Your task to perform on an android device: Open sound settings Image 0: 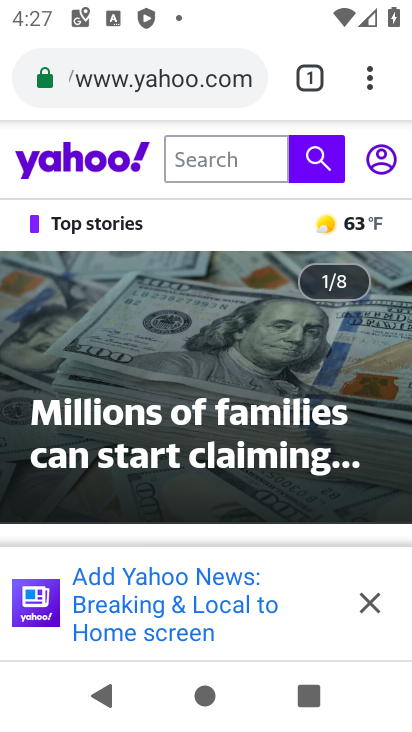
Step 0: press home button
Your task to perform on an android device: Open sound settings Image 1: 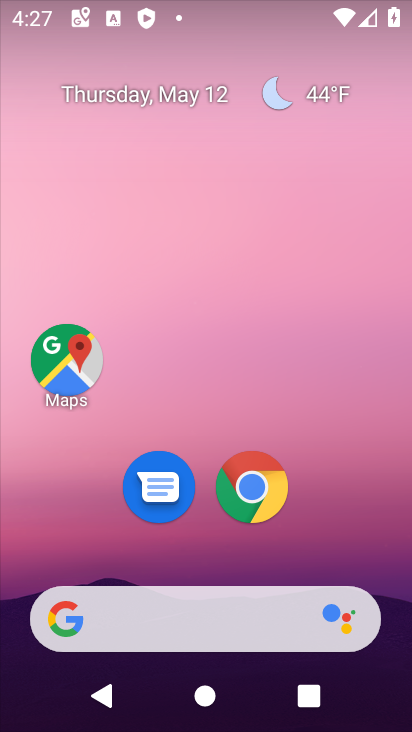
Step 1: drag from (184, 547) to (208, 101)
Your task to perform on an android device: Open sound settings Image 2: 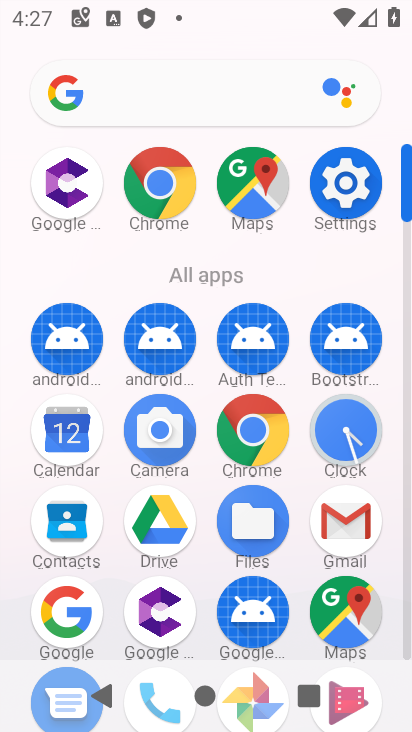
Step 2: click (342, 183)
Your task to perform on an android device: Open sound settings Image 3: 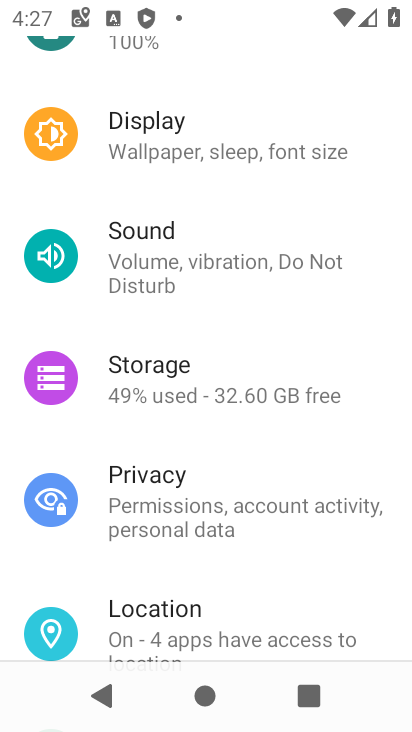
Step 3: click (185, 259)
Your task to perform on an android device: Open sound settings Image 4: 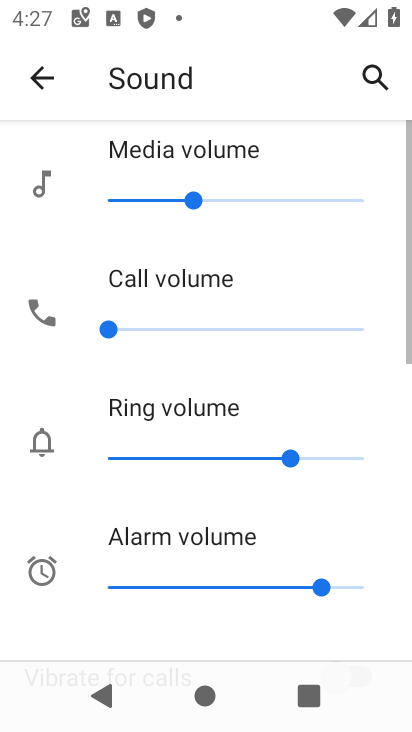
Step 4: task complete